Your task to perform on an android device: Set the phone to "Do not disturb". Image 0: 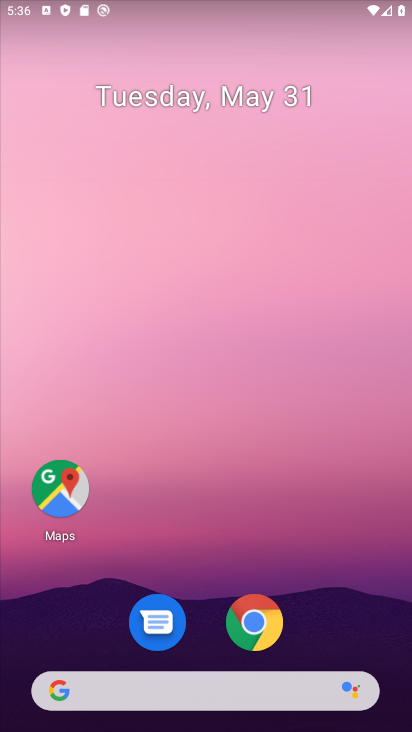
Step 0: drag from (329, 625) to (370, 107)
Your task to perform on an android device: Set the phone to "Do not disturb". Image 1: 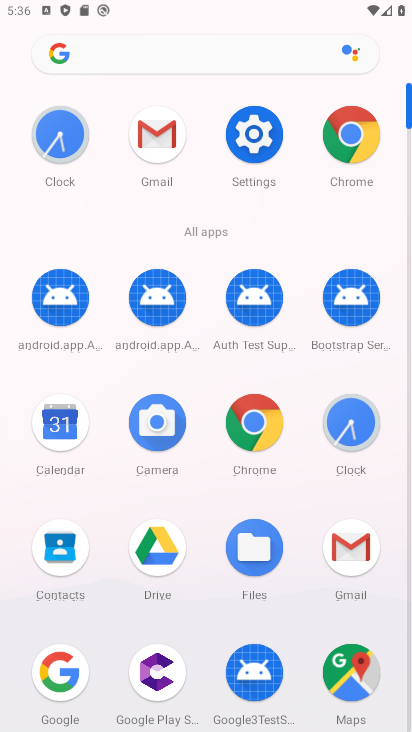
Step 1: click (267, 170)
Your task to perform on an android device: Set the phone to "Do not disturb". Image 2: 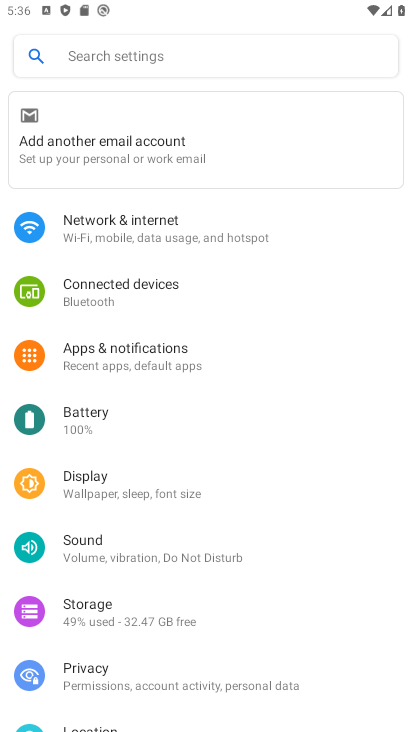
Step 2: click (167, 556)
Your task to perform on an android device: Set the phone to "Do not disturb". Image 3: 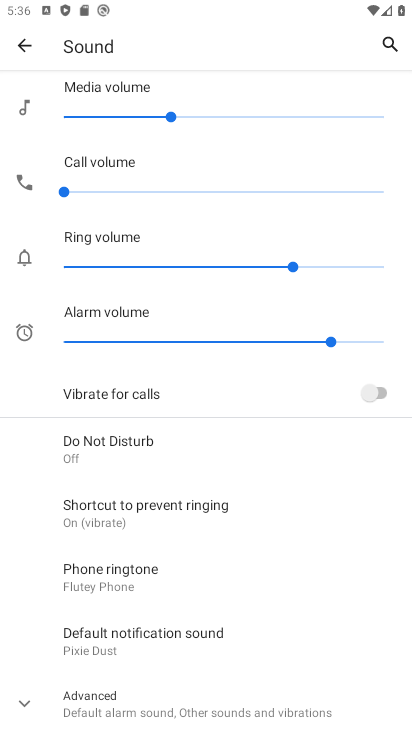
Step 3: click (123, 446)
Your task to perform on an android device: Set the phone to "Do not disturb". Image 4: 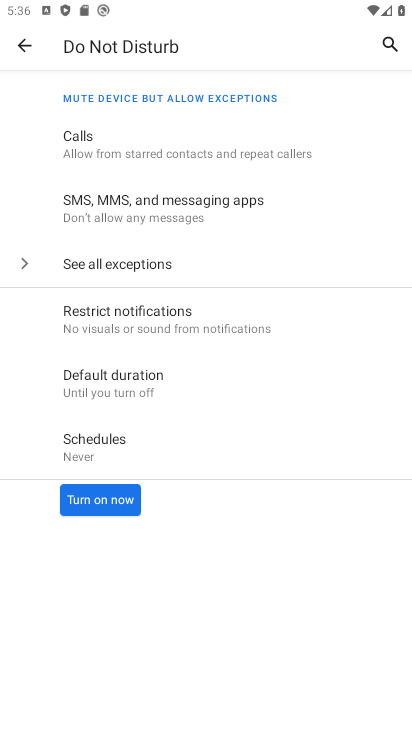
Step 4: click (135, 495)
Your task to perform on an android device: Set the phone to "Do not disturb". Image 5: 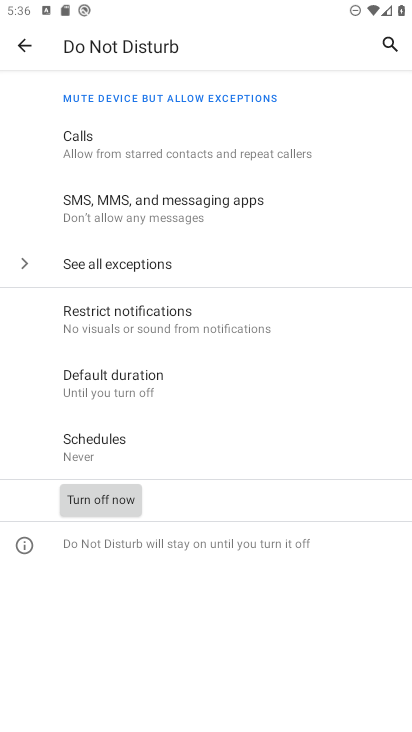
Step 5: task complete